Your task to perform on an android device: Add apple airpods pro to the cart on bestbuy.com Image 0: 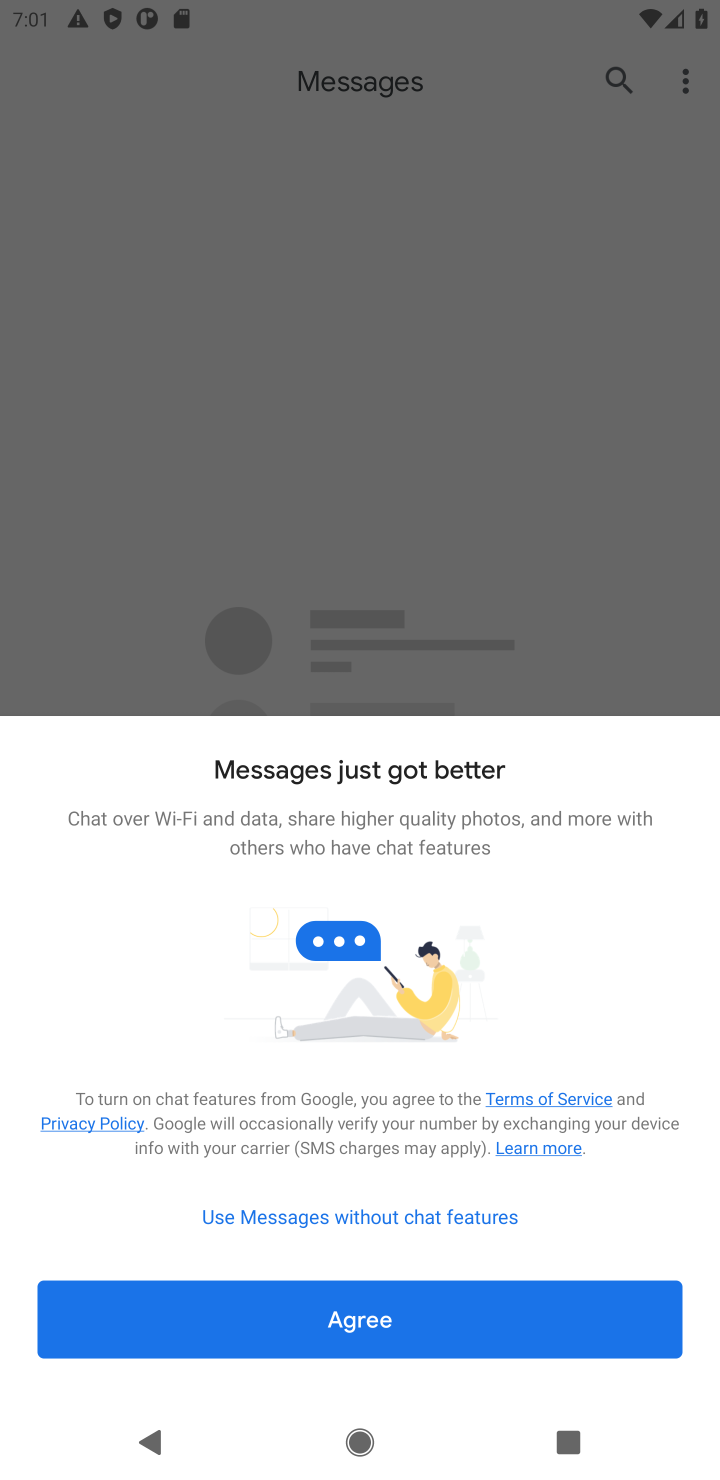
Step 0: click (289, 1357)
Your task to perform on an android device: Add apple airpods pro to the cart on bestbuy.com Image 1: 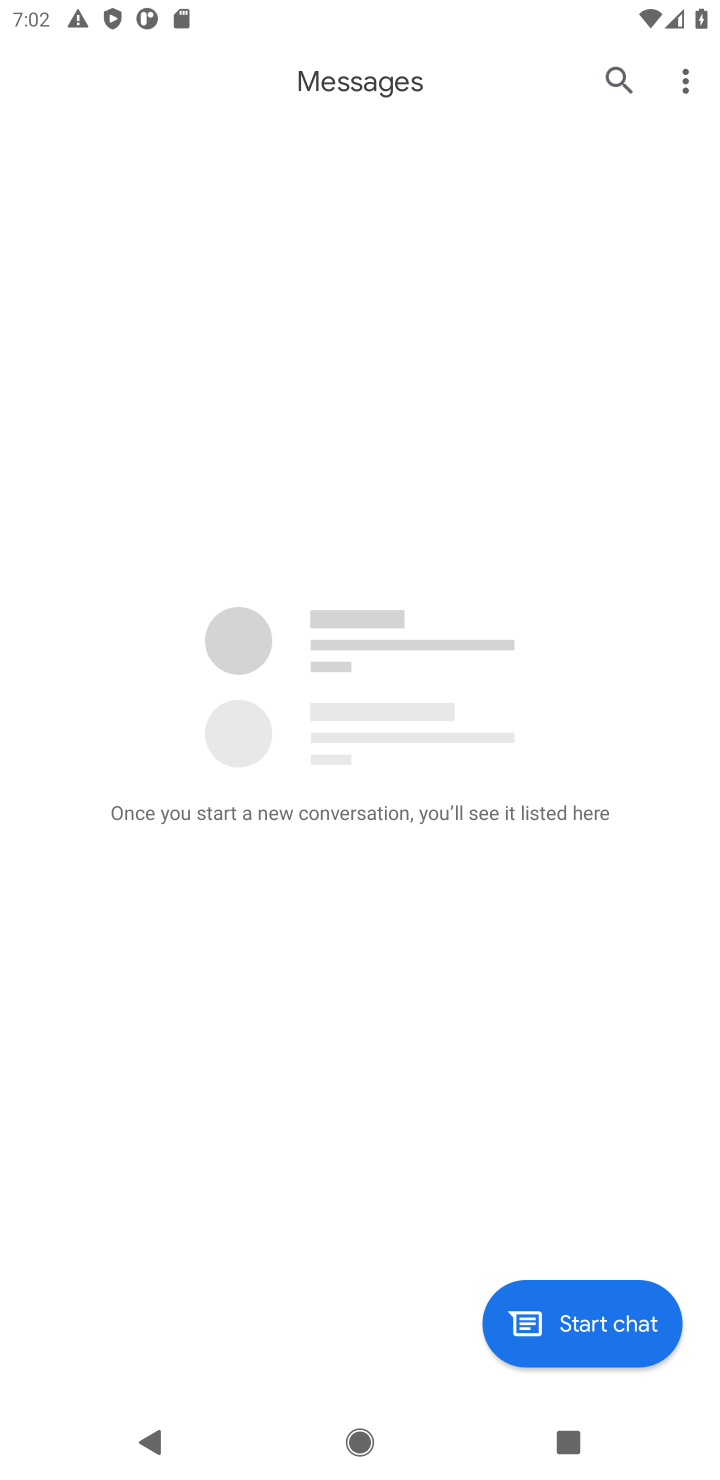
Step 1: press home button
Your task to perform on an android device: Add apple airpods pro to the cart on bestbuy.com Image 2: 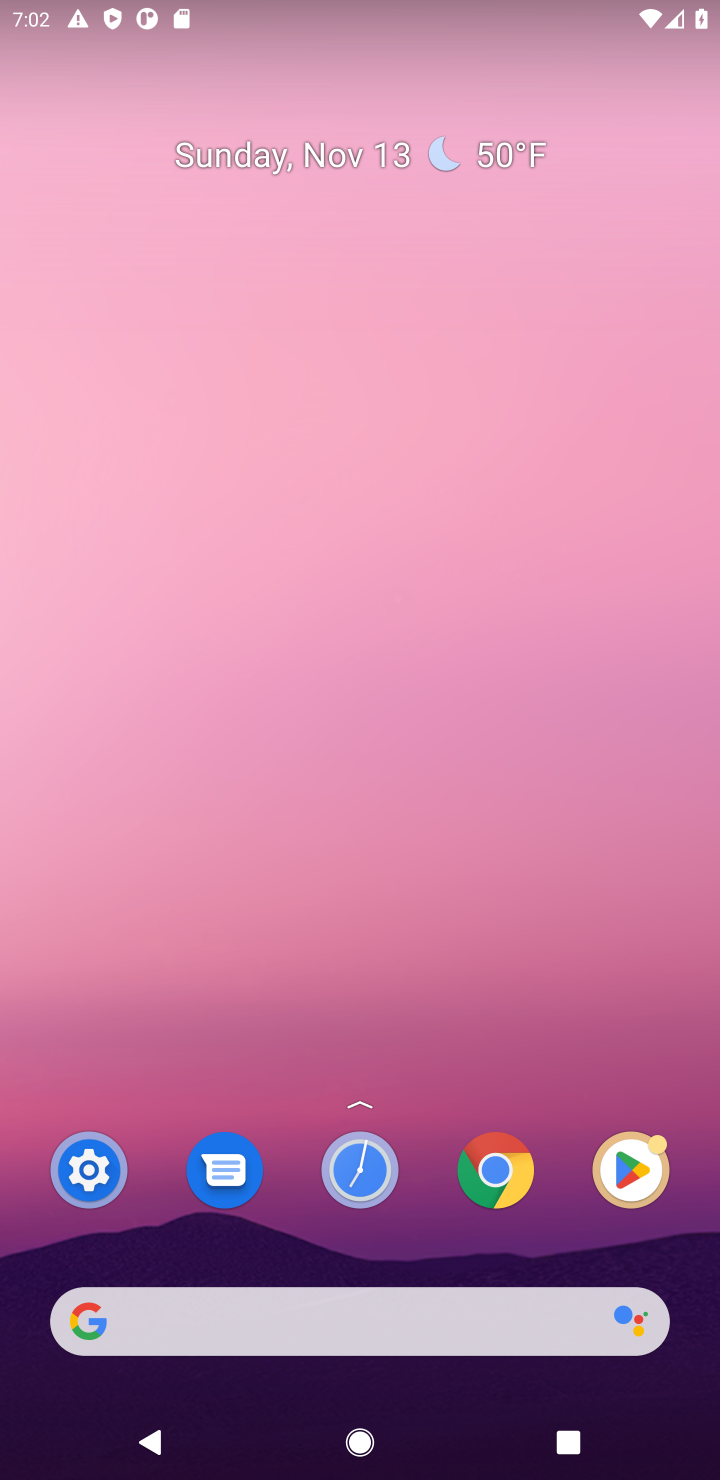
Step 2: click (213, 1329)
Your task to perform on an android device: Add apple airpods pro to the cart on bestbuy.com Image 3: 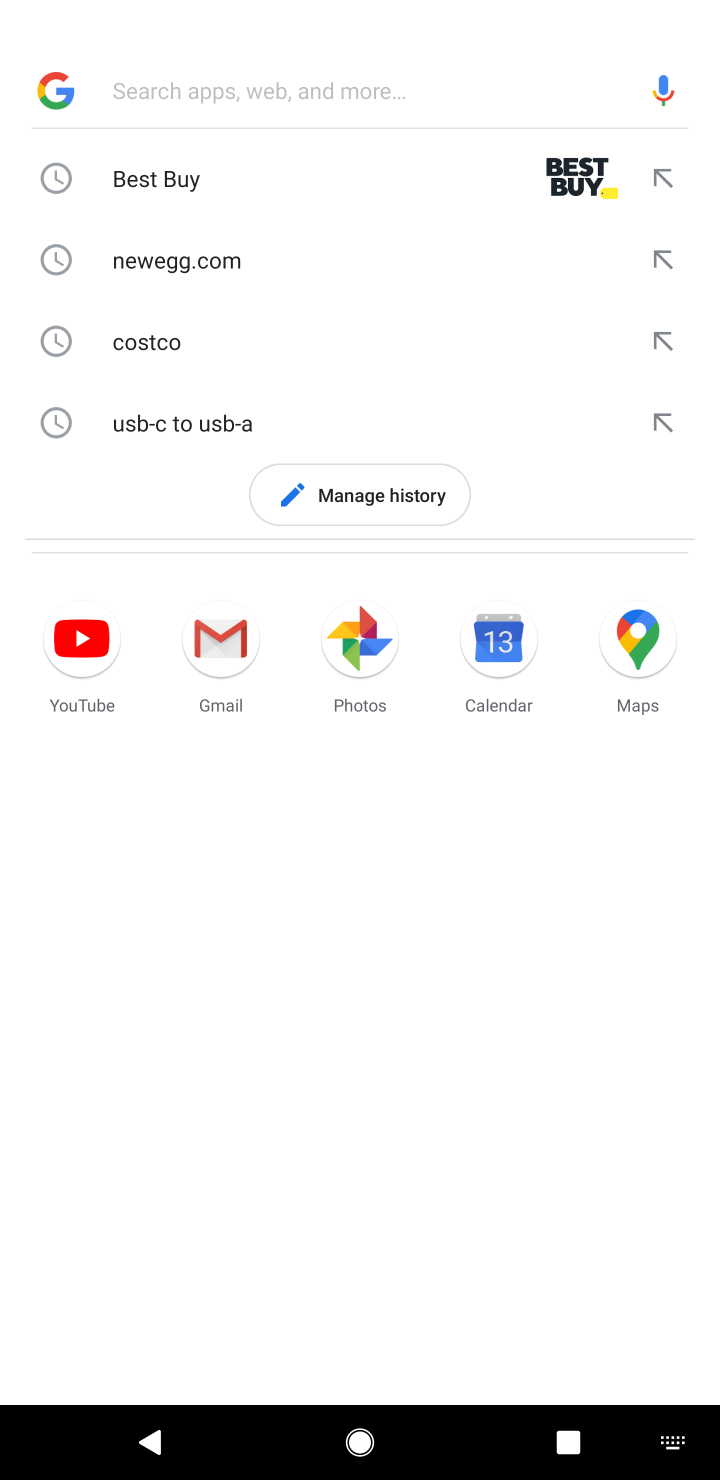
Step 3: type "bestbuy"
Your task to perform on an android device: Add apple airpods pro to the cart on bestbuy.com Image 4: 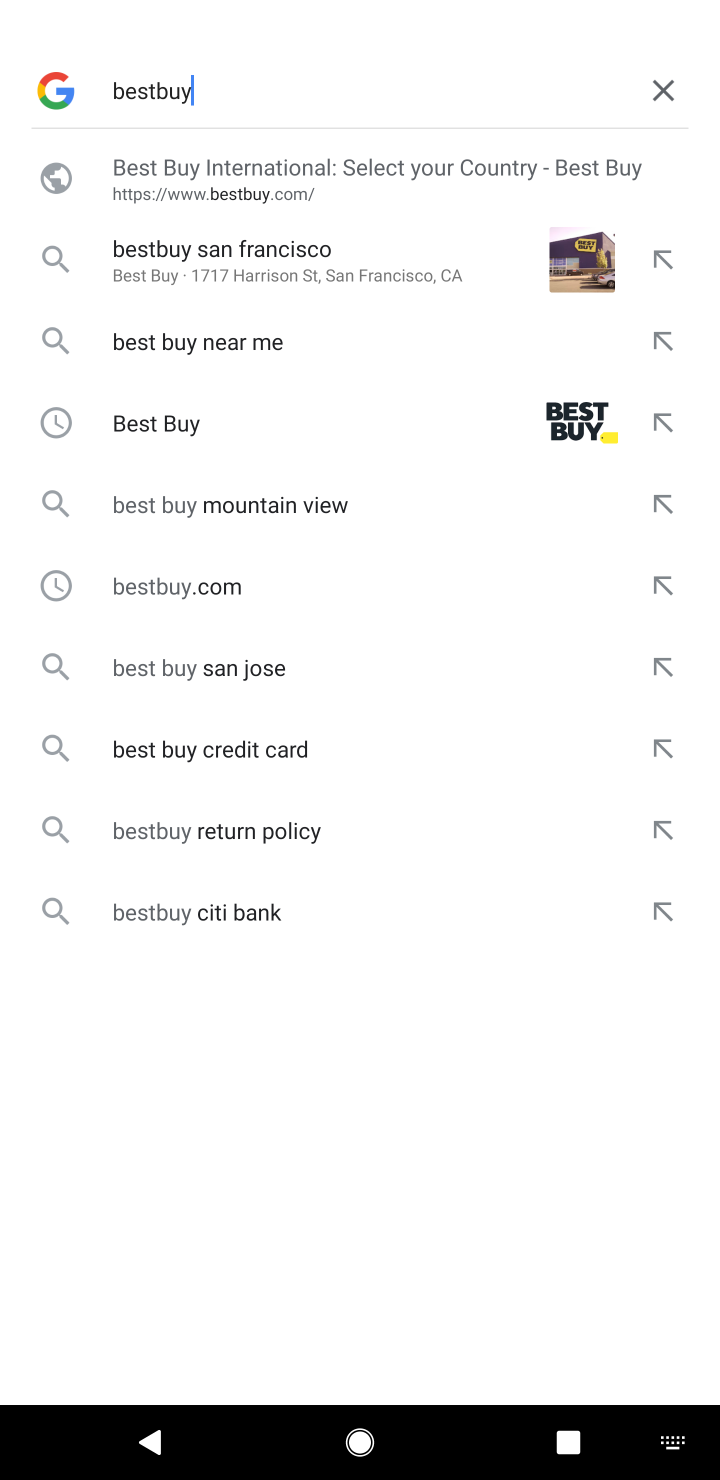
Step 4: task complete